Your task to perform on an android device: Search for pizza restaurants on Maps Image 0: 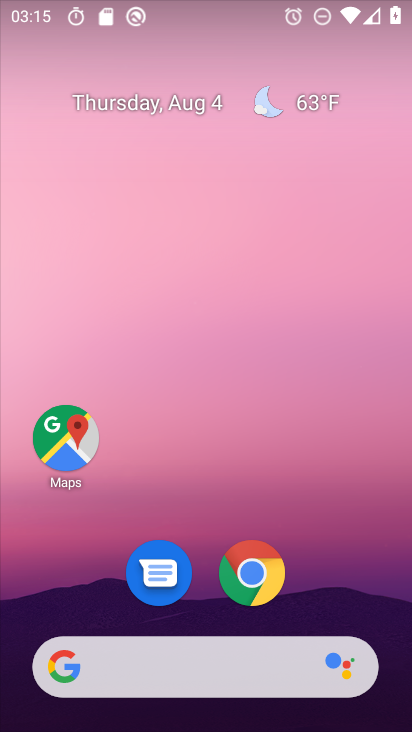
Step 0: drag from (357, 573) to (310, 23)
Your task to perform on an android device: Search for pizza restaurants on Maps Image 1: 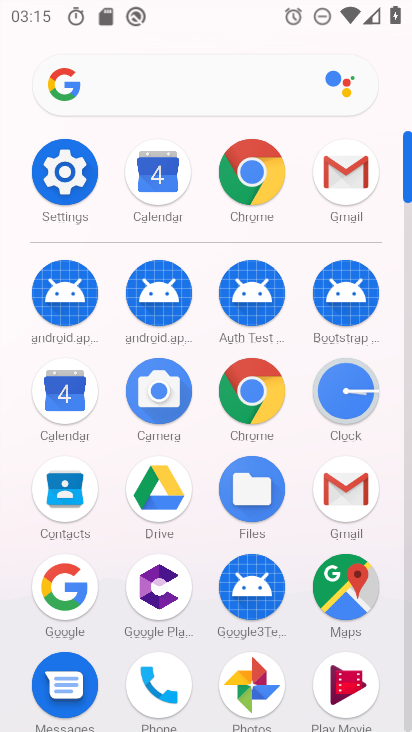
Step 1: click (340, 577)
Your task to perform on an android device: Search for pizza restaurants on Maps Image 2: 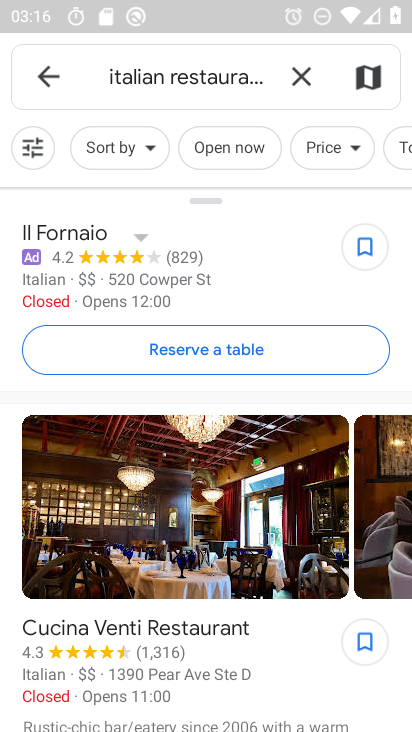
Step 2: click (251, 68)
Your task to perform on an android device: Search for pizza restaurants on Maps Image 3: 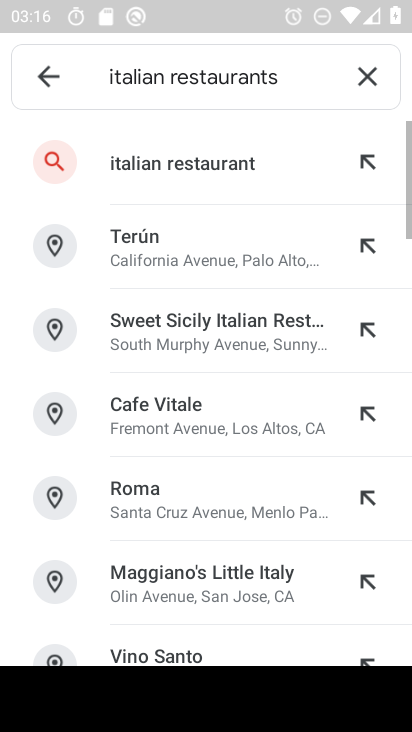
Step 3: click (369, 71)
Your task to perform on an android device: Search for pizza restaurants on Maps Image 4: 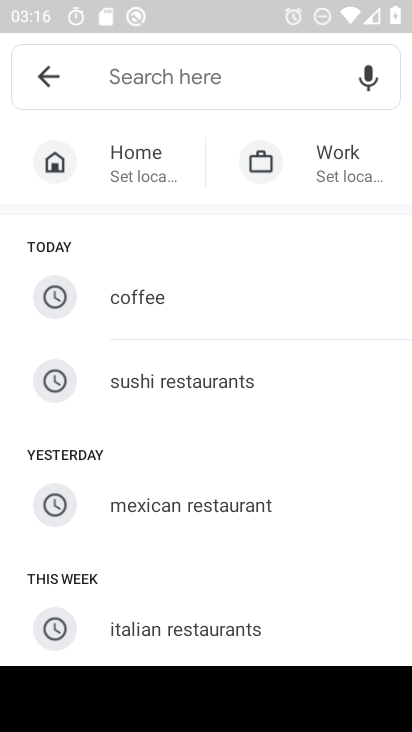
Step 4: type "pizza restaurants"
Your task to perform on an android device: Search for pizza restaurants on Maps Image 5: 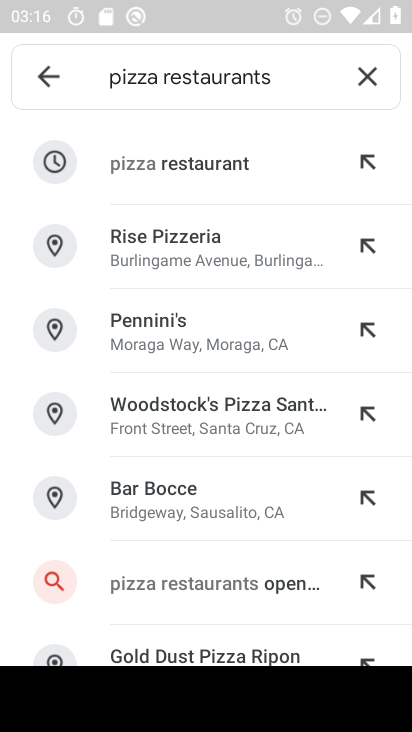
Step 5: press enter
Your task to perform on an android device: Search for pizza restaurants on Maps Image 6: 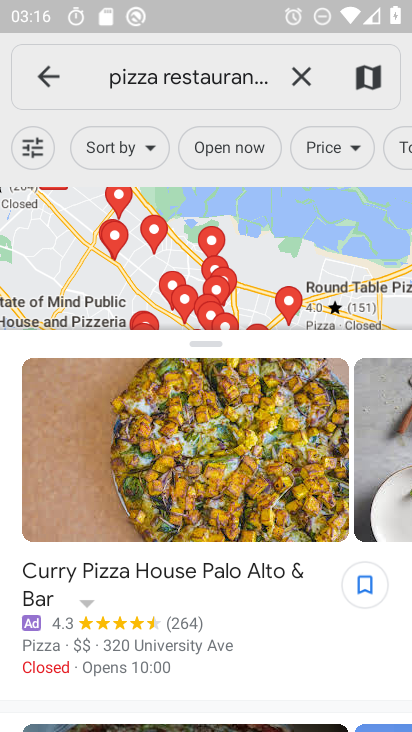
Step 6: task complete